Your task to perform on an android device: What is the recent news? Image 0: 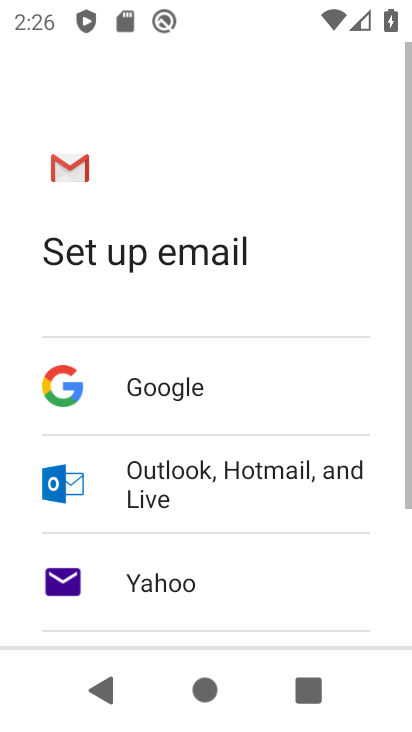
Step 0: press back button
Your task to perform on an android device: What is the recent news? Image 1: 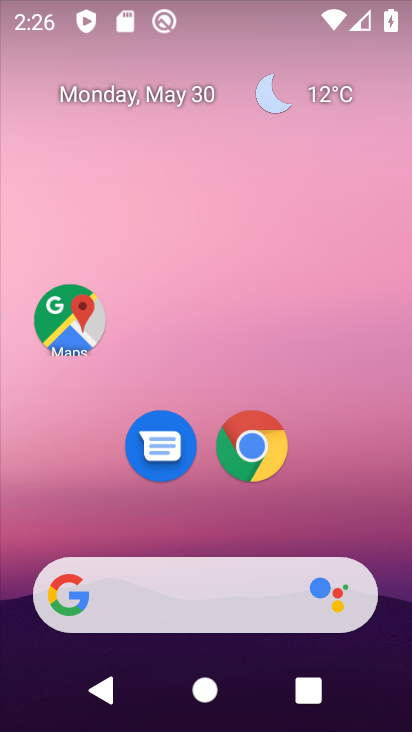
Step 1: drag from (341, 485) to (279, 174)
Your task to perform on an android device: What is the recent news? Image 2: 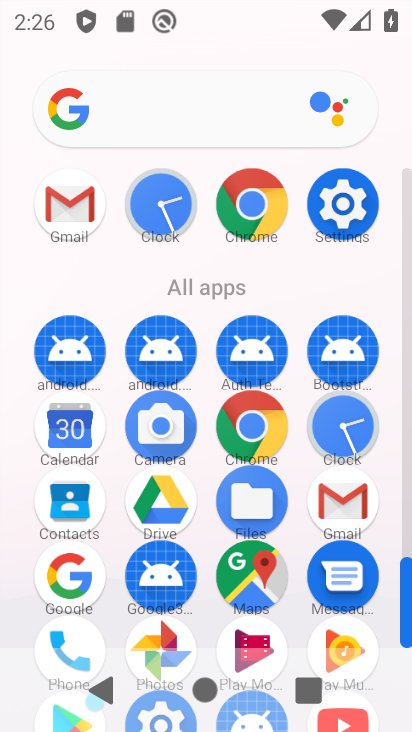
Step 2: click (63, 573)
Your task to perform on an android device: What is the recent news? Image 3: 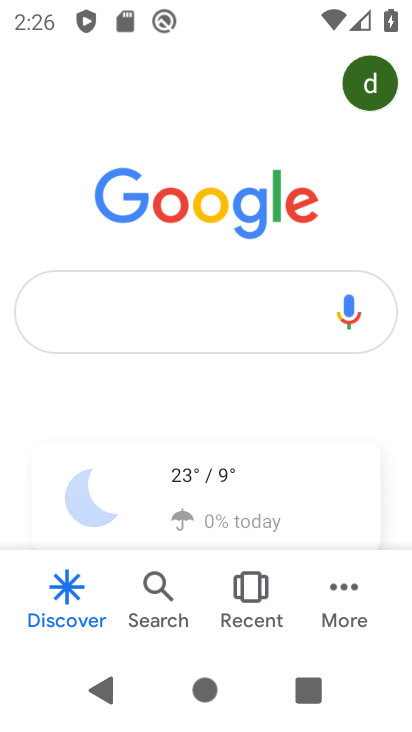
Step 3: click (190, 322)
Your task to perform on an android device: What is the recent news? Image 4: 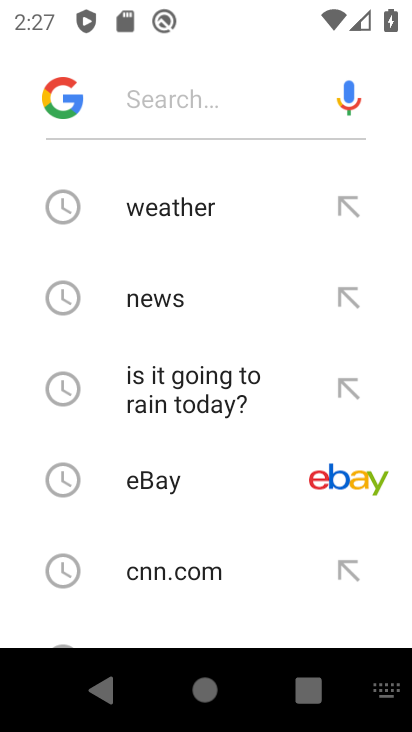
Step 4: type "recent news"
Your task to perform on an android device: What is the recent news? Image 5: 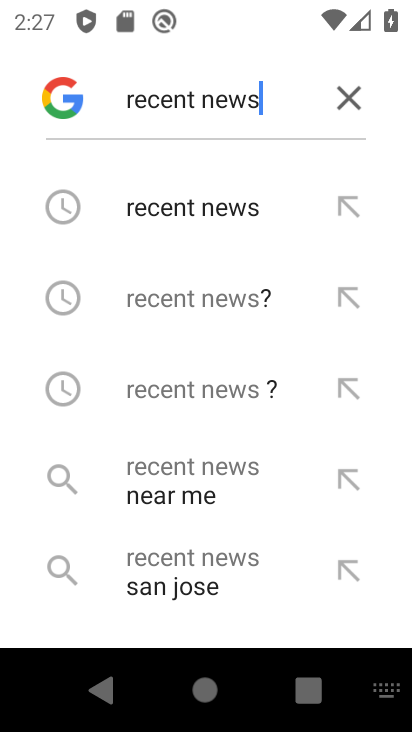
Step 5: click (234, 303)
Your task to perform on an android device: What is the recent news? Image 6: 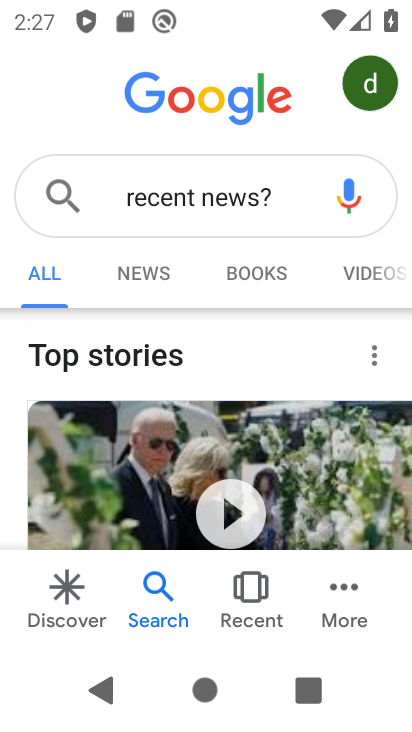
Step 6: click (161, 463)
Your task to perform on an android device: What is the recent news? Image 7: 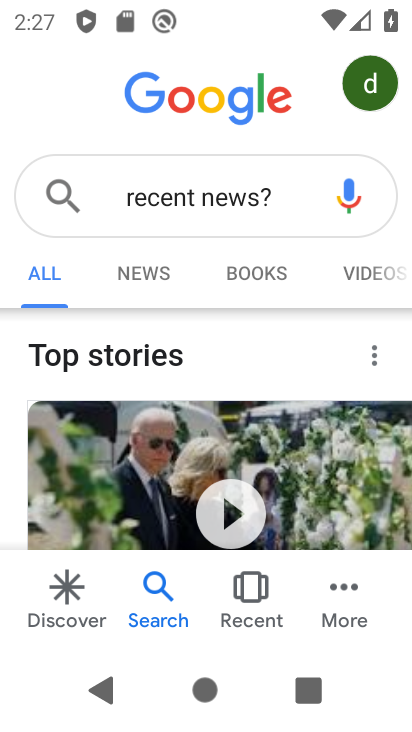
Step 7: click (316, 444)
Your task to perform on an android device: What is the recent news? Image 8: 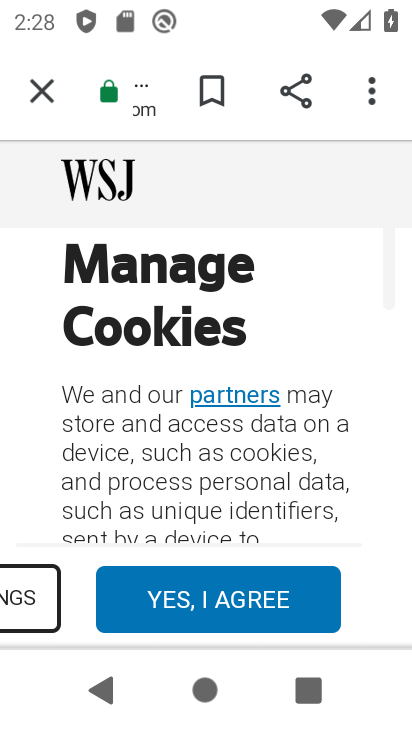
Step 8: task complete